Your task to perform on an android device: Go to sound settings Image 0: 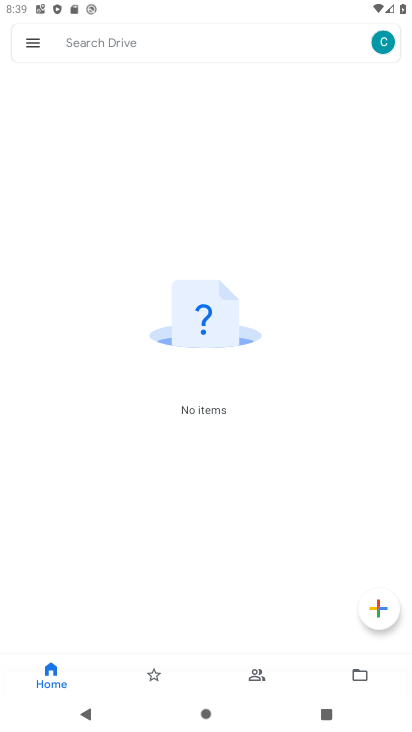
Step 0: press home button
Your task to perform on an android device: Go to sound settings Image 1: 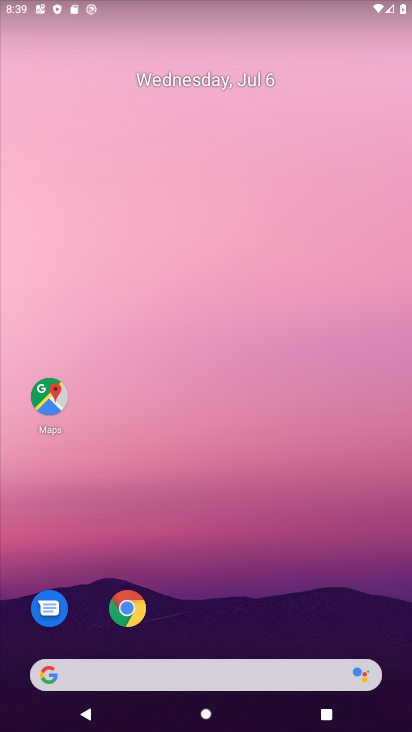
Step 1: drag from (148, 660) to (144, 262)
Your task to perform on an android device: Go to sound settings Image 2: 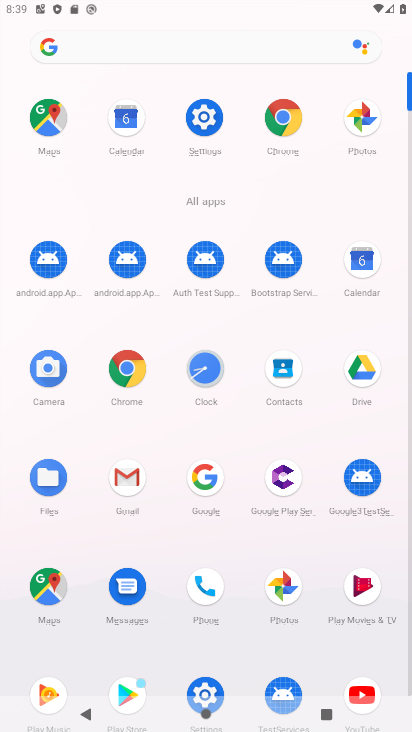
Step 2: click (203, 124)
Your task to perform on an android device: Go to sound settings Image 3: 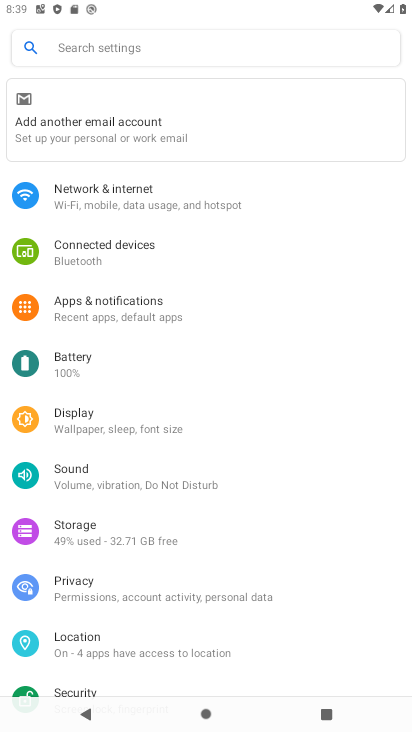
Step 3: click (81, 477)
Your task to perform on an android device: Go to sound settings Image 4: 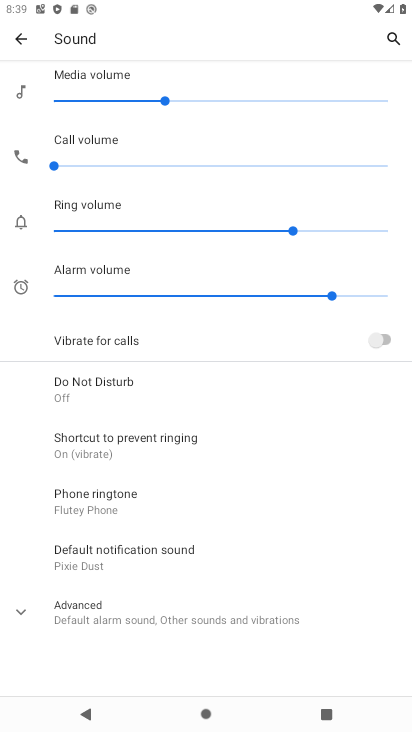
Step 4: click (45, 616)
Your task to perform on an android device: Go to sound settings Image 5: 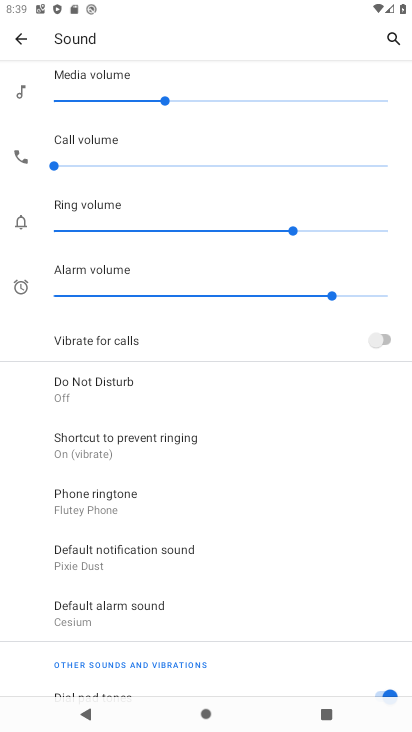
Step 5: task complete